Your task to perform on an android device: manage bookmarks in the chrome app Image 0: 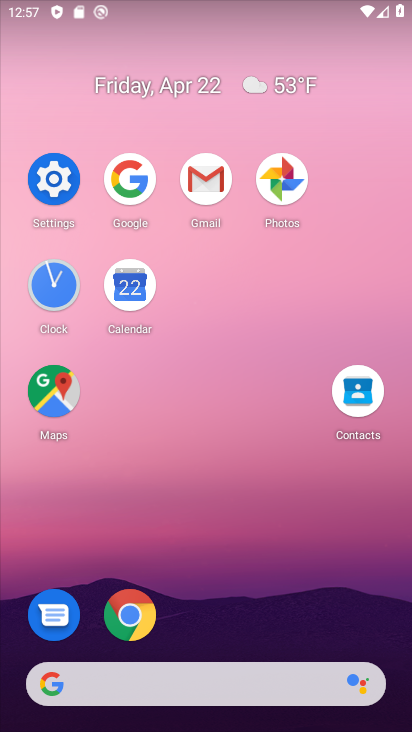
Step 0: click (126, 624)
Your task to perform on an android device: manage bookmarks in the chrome app Image 1: 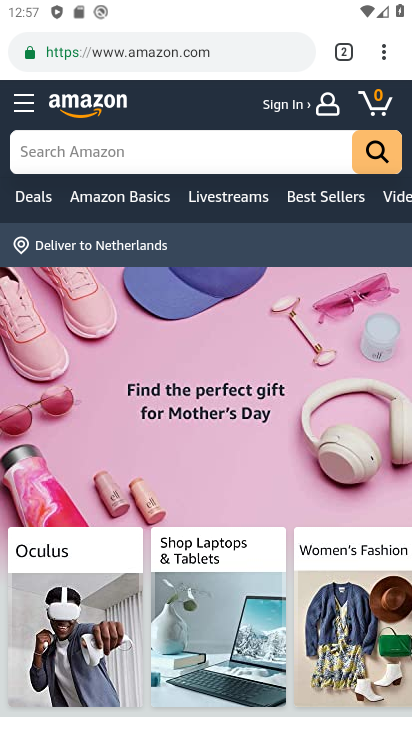
Step 1: click (382, 63)
Your task to perform on an android device: manage bookmarks in the chrome app Image 2: 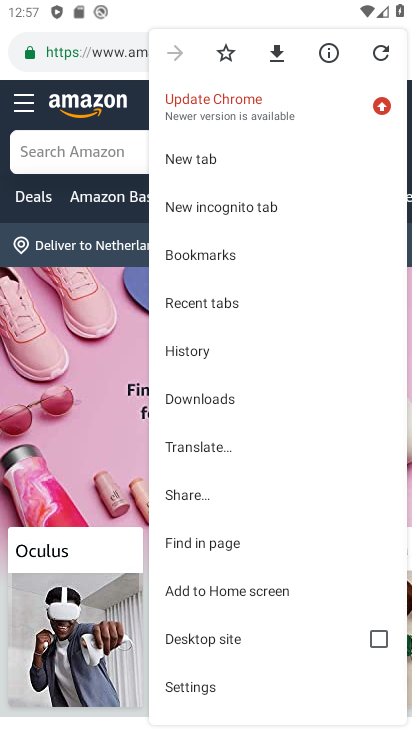
Step 2: click (242, 254)
Your task to perform on an android device: manage bookmarks in the chrome app Image 3: 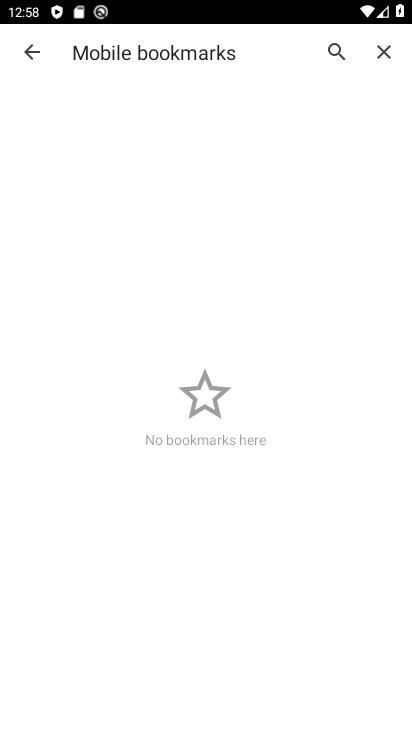
Step 3: task complete